Your task to perform on an android device: turn on the 12-hour format for clock Image 0: 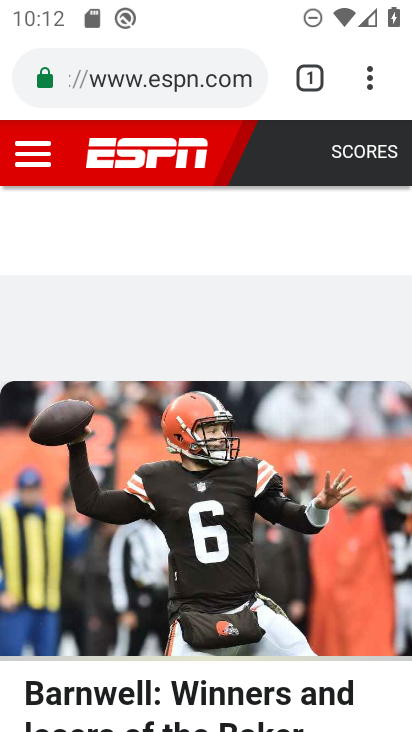
Step 0: press home button
Your task to perform on an android device: turn on the 12-hour format for clock Image 1: 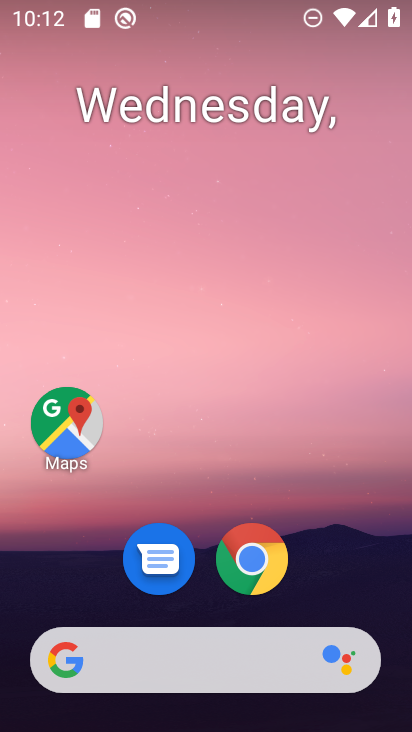
Step 1: drag from (381, 590) to (365, 290)
Your task to perform on an android device: turn on the 12-hour format for clock Image 2: 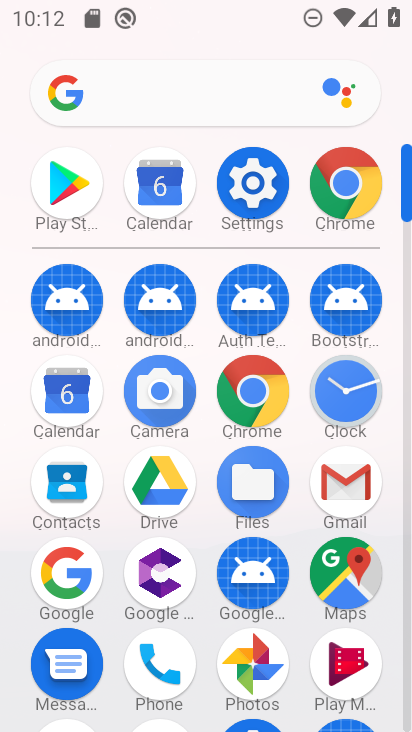
Step 2: click (398, 386)
Your task to perform on an android device: turn on the 12-hour format for clock Image 3: 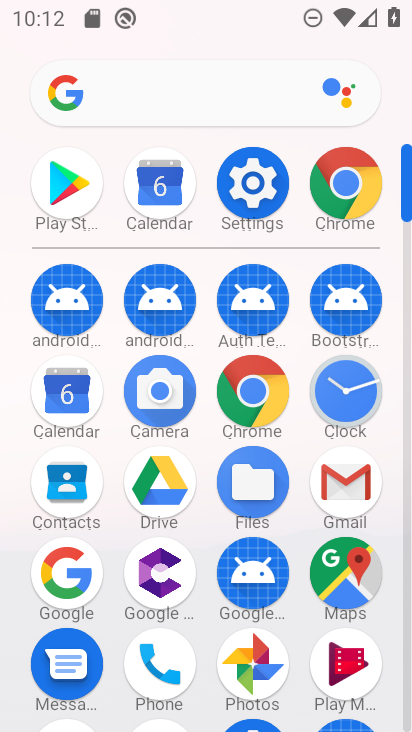
Step 3: click (398, 386)
Your task to perform on an android device: turn on the 12-hour format for clock Image 4: 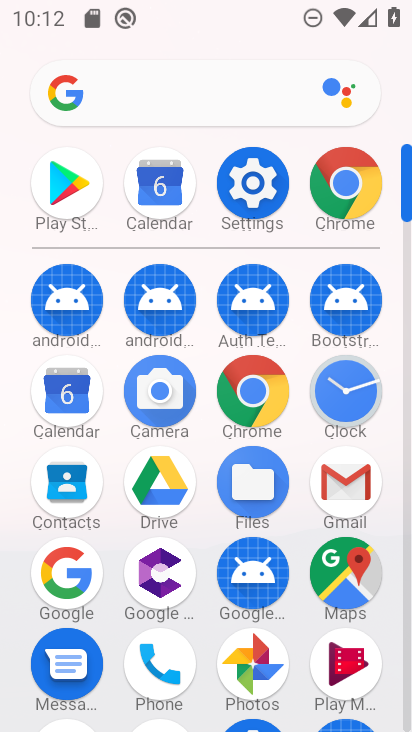
Step 4: click (358, 402)
Your task to perform on an android device: turn on the 12-hour format for clock Image 5: 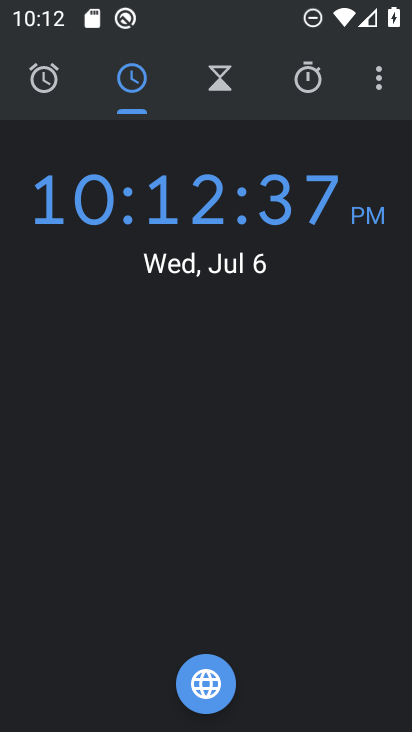
Step 5: click (380, 92)
Your task to perform on an android device: turn on the 12-hour format for clock Image 6: 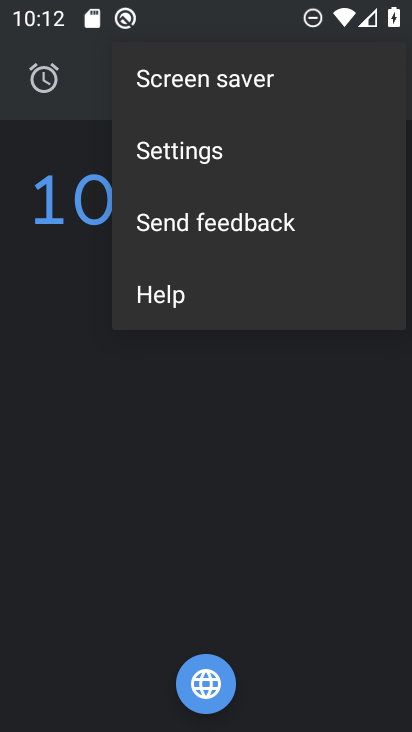
Step 6: click (280, 167)
Your task to perform on an android device: turn on the 12-hour format for clock Image 7: 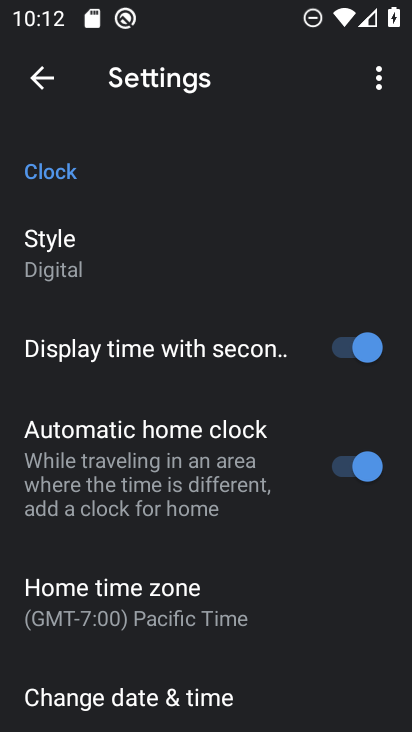
Step 7: drag from (312, 479) to (311, 405)
Your task to perform on an android device: turn on the 12-hour format for clock Image 8: 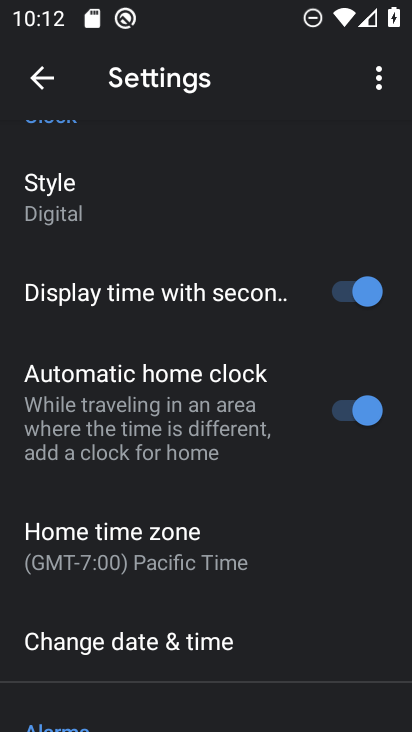
Step 8: drag from (315, 485) to (306, 412)
Your task to perform on an android device: turn on the 12-hour format for clock Image 9: 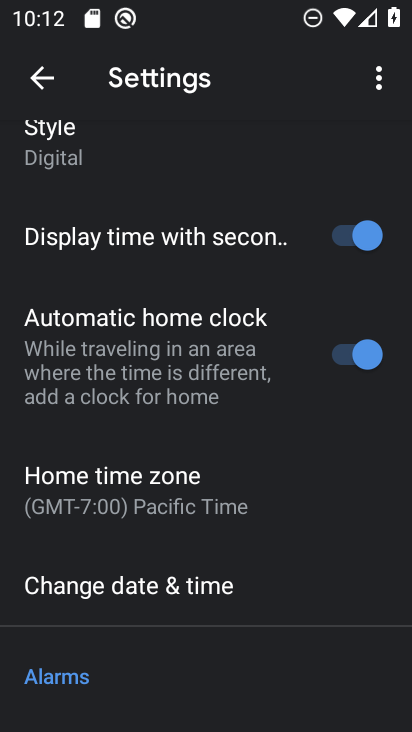
Step 9: drag from (326, 542) to (326, 476)
Your task to perform on an android device: turn on the 12-hour format for clock Image 10: 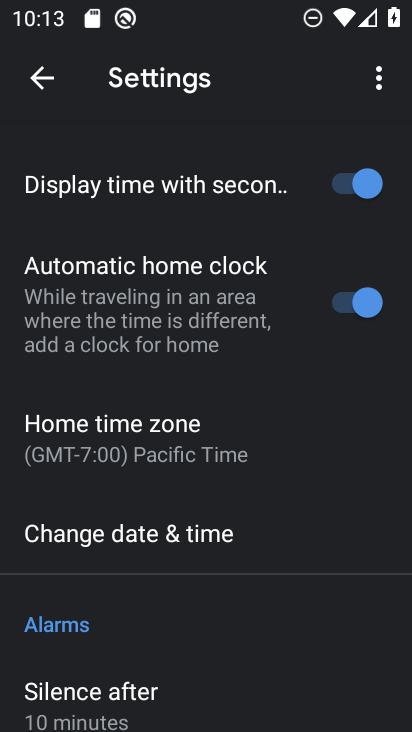
Step 10: click (232, 536)
Your task to perform on an android device: turn on the 12-hour format for clock Image 11: 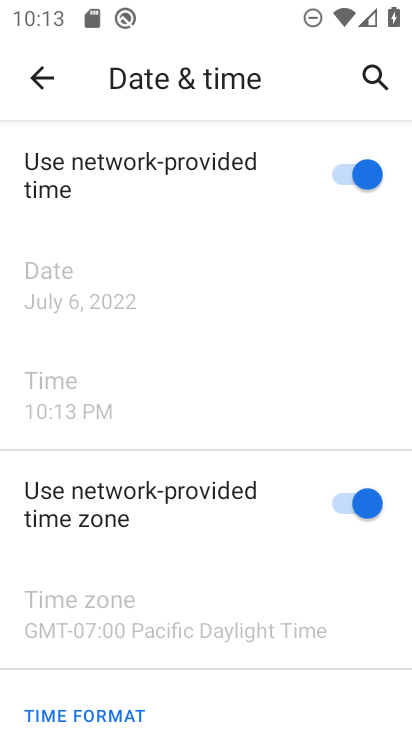
Step 11: drag from (265, 541) to (288, 438)
Your task to perform on an android device: turn on the 12-hour format for clock Image 12: 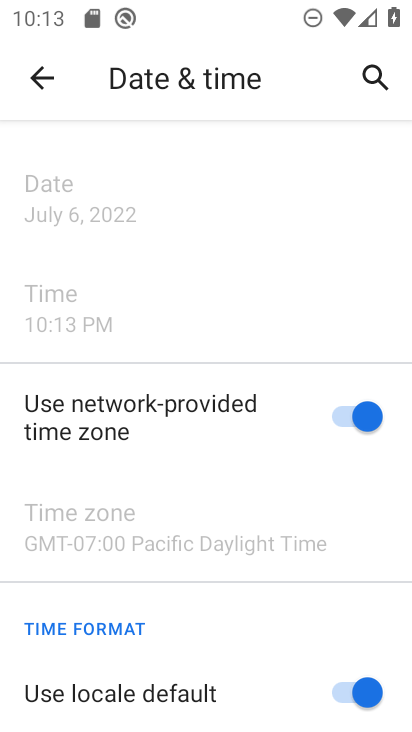
Step 12: drag from (268, 595) to (292, 474)
Your task to perform on an android device: turn on the 12-hour format for clock Image 13: 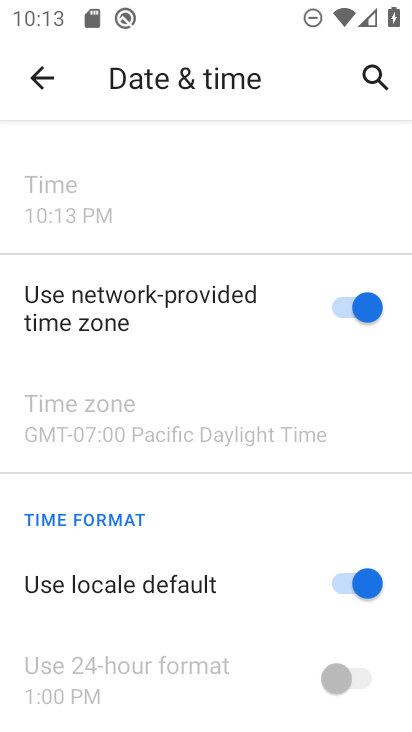
Step 13: drag from (308, 581) to (312, 489)
Your task to perform on an android device: turn on the 12-hour format for clock Image 14: 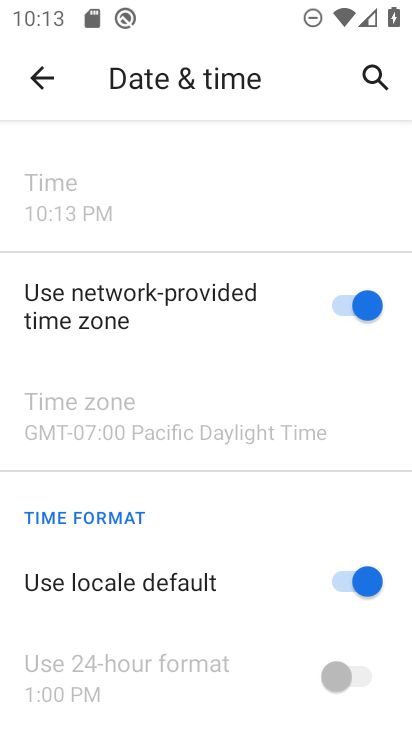
Step 14: drag from (286, 581) to (280, 450)
Your task to perform on an android device: turn on the 12-hour format for clock Image 15: 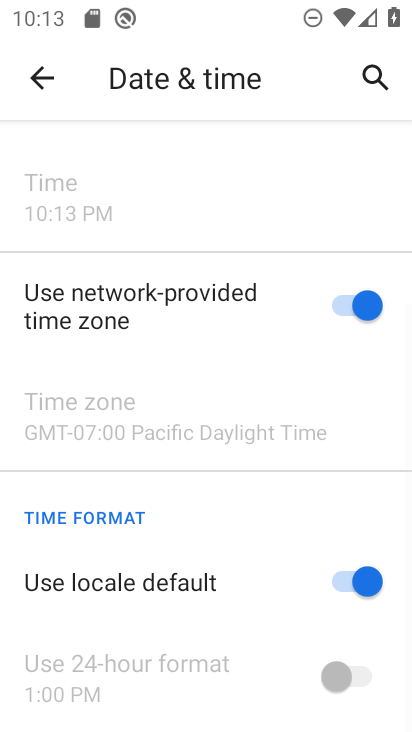
Step 15: click (327, 684)
Your task to perform on an android device: turn on the 12-hour format for clock Image 16: 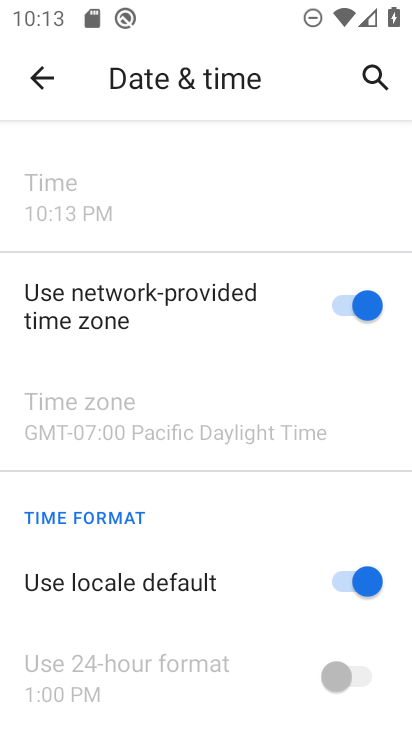
Step 16: click (374, 586)
Your task to perform on an android device: turn on the 12-hour format for clock Image 17: 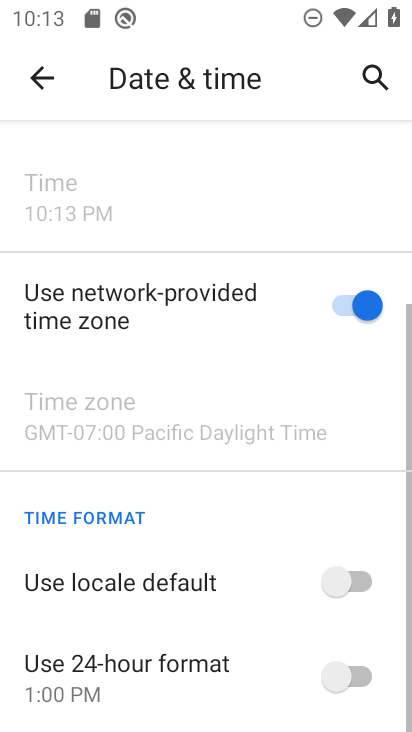
Step 17: click (331, 692)
Your task to perform on an android device: turn on the 12-hour format for clock Image 18: 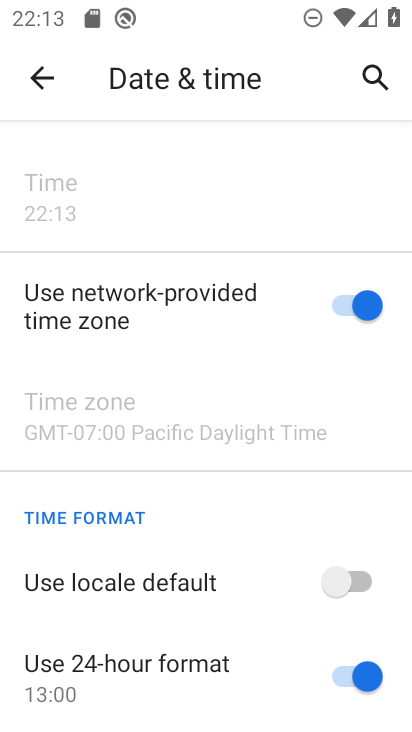
Step 18: task complete